Your task to perform on an android device: add a label to a message in the gmail app Image 0: 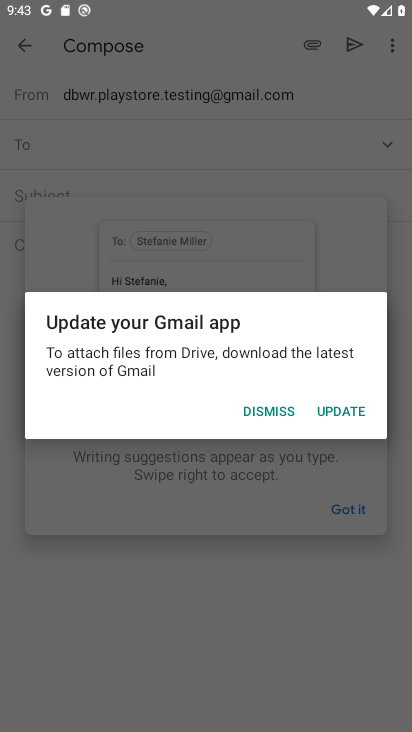
Step 0: press home button
Your task to perform on an android device: add a label to a message in the gmail app Image 1: 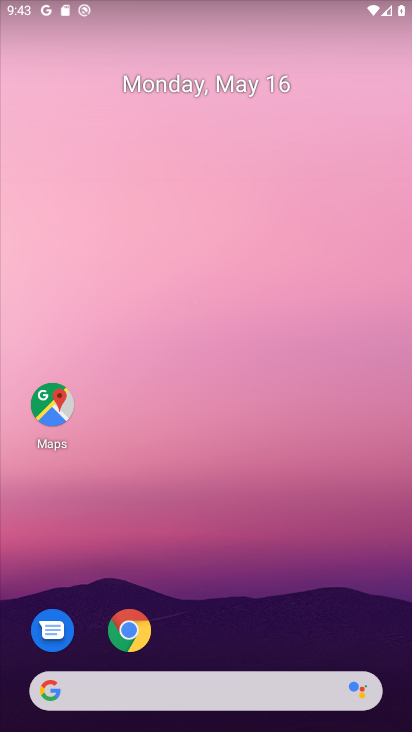
Step 1: drag from (218, 575) to (220, 27)
Your task to perform on an android device: add a label to a message in the gmail app Image 2: 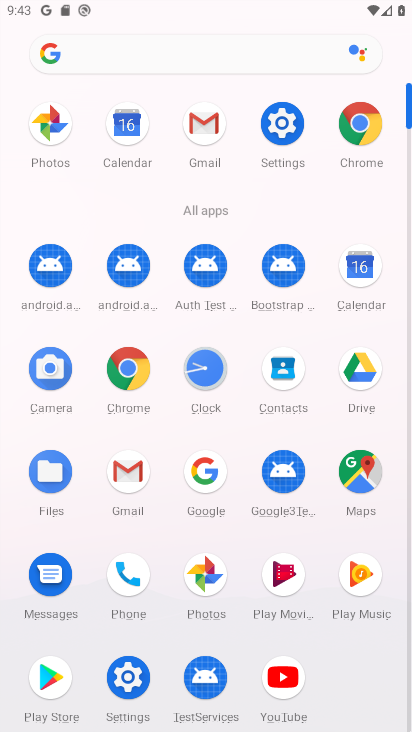
Step 2: click (215, 122)
Your task to perform on an android device: add a label to a message in the gmail app Image 3: 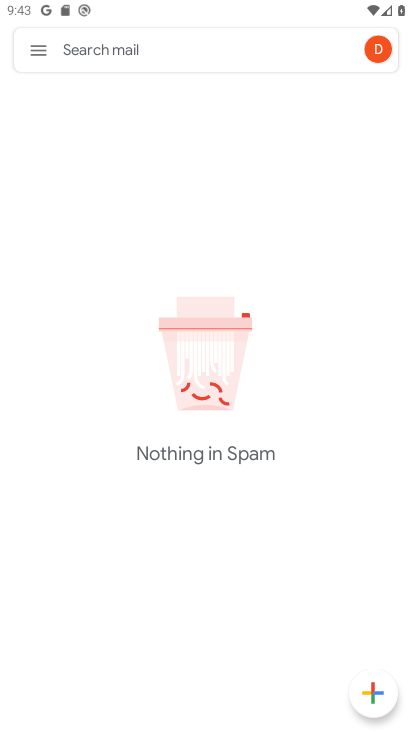
Step 3: click (30, 42)
Your task to perform on an android device: add a label to a message in the gmail app Image 4: 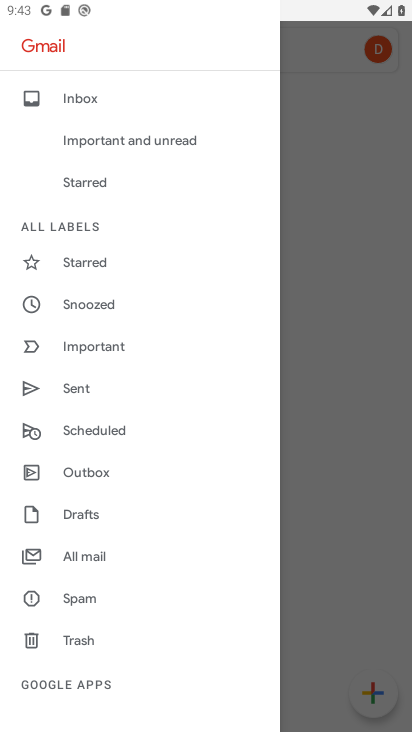
Step 4: click (95, 549)
Your task to perform on an android device: add a label to a message in the gmail app Image 5: 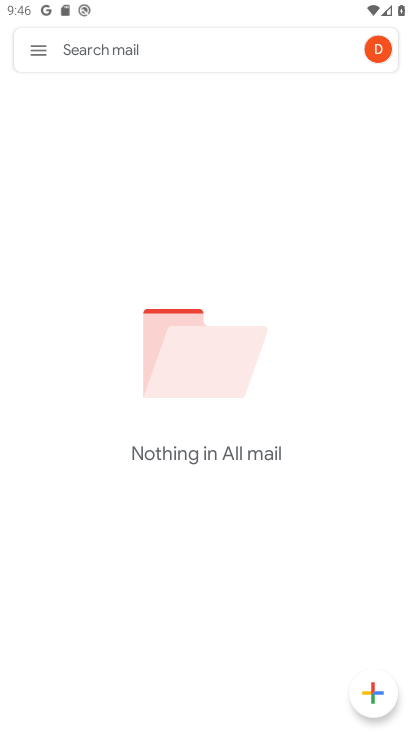
Step 5: task complete